Your task to perform on an android device: turn off smart reply in the gmail app Image 0: 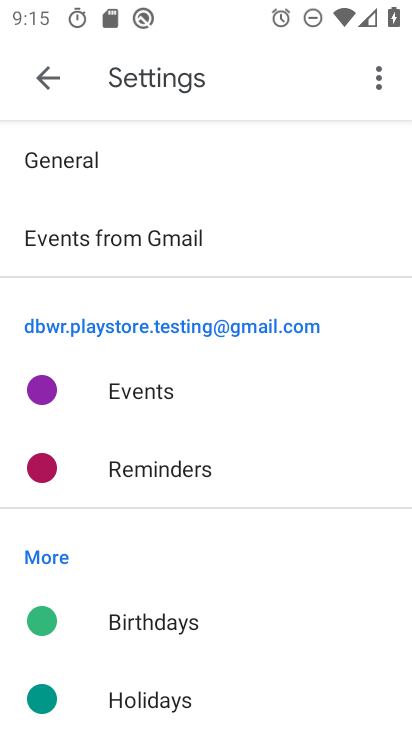
Step 0: press home button
Your task to perform on an android device: turn off smart reply in the gmail app Image 1: 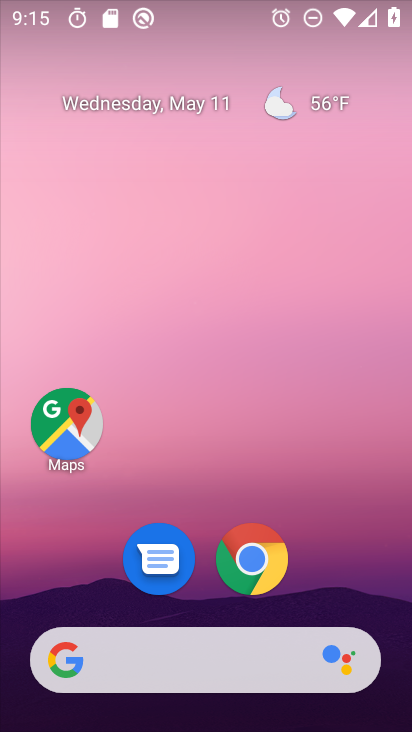
Step 1: click (197, 106)
Your task to perform on an android device: turn off smart reply in the gmail app Image 2: 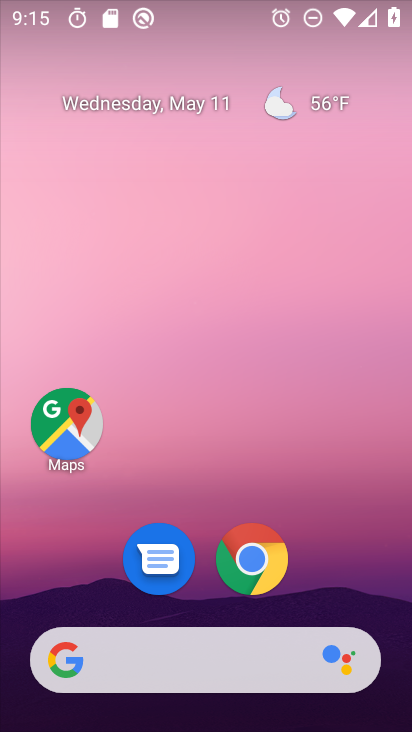
Step 2: drag from (331, 560) to (289, 111)
Your task to perform on an android device: turn off smart reply in the gmail app Image 3: 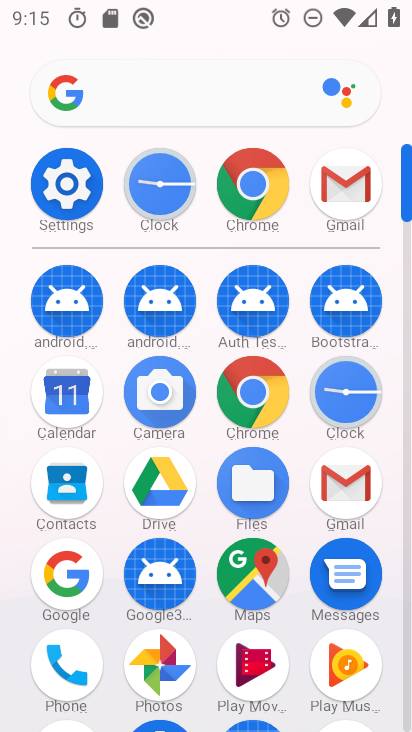
Step 3: click (347, 482)
Your task to perform on an android device: turn off smart reply in the gmail app Image 4: 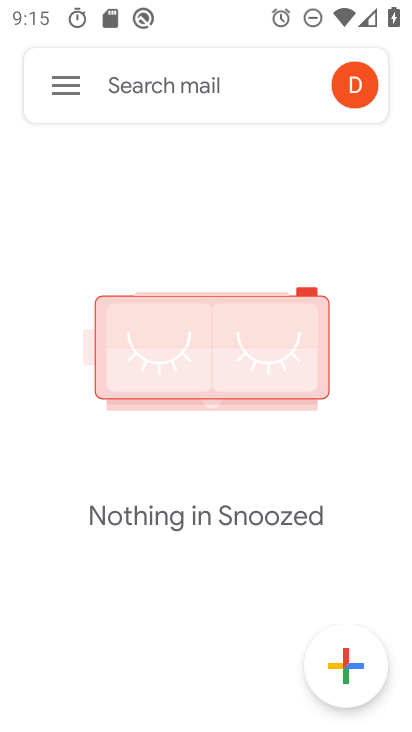
Step 4: click (64, 81)
Your task to perform on an android device: turn off smart reply in the gmail app Image 5: 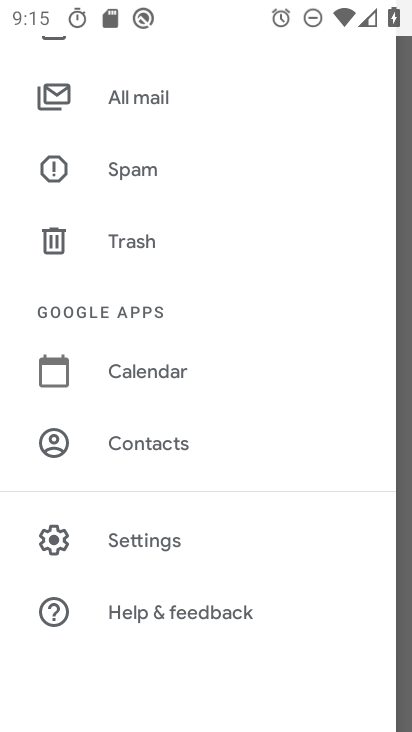
Step 5: click (181, 533)
Your task to perform on an android device: turn off smart reply in the gmail app Image 6: 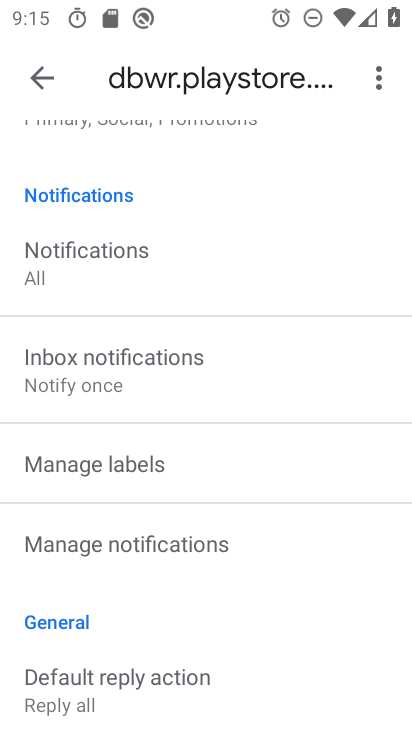
Step 6: drag from (327, 621) to (378, 156)
Your task to perform on an android device: turn off smart reply in the gmail app Image 7: 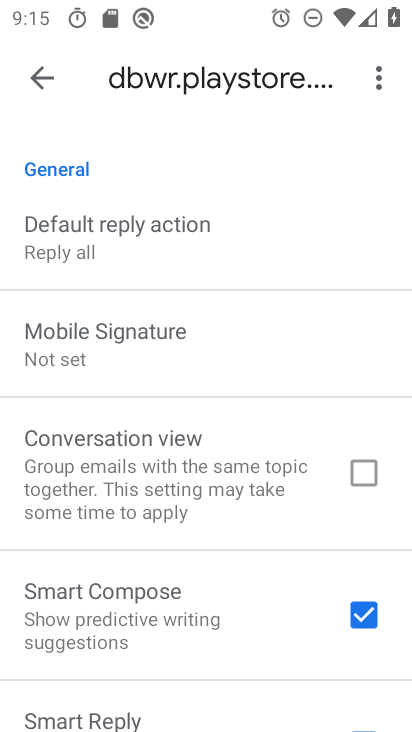
Step 7: drag from (273, 593) to (294, 261)
Your task to perform on an android device: turn off smart reply in the gmail app Image 8: 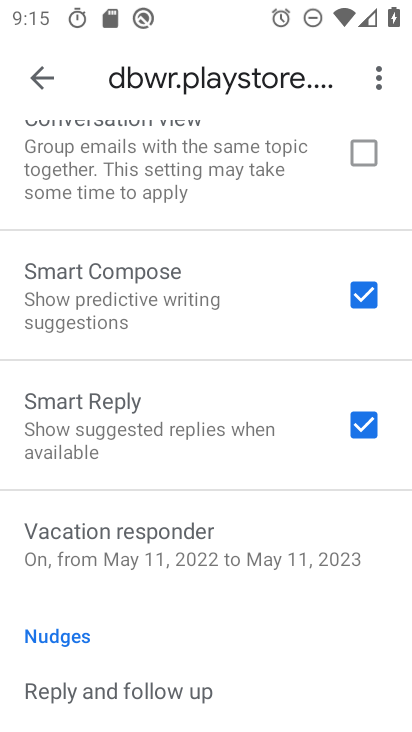
Step 8: click (359, 414)
Your task to perform on an android device: turn off smart reply in the gmail app Image 9: 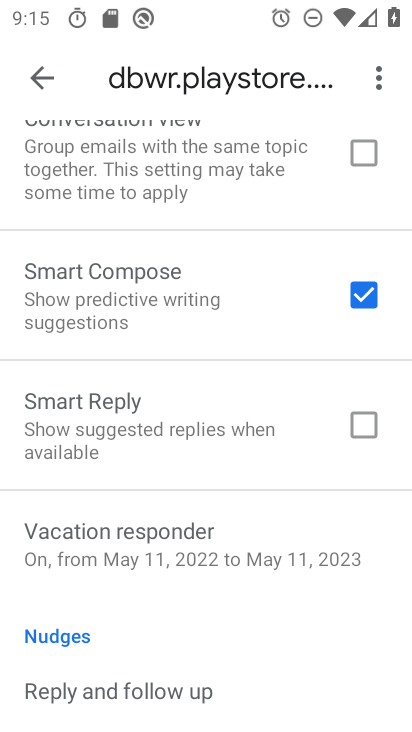
Step 9: task complete